Your task to perform on an android device: Open calendar and show me the third week of next month Image 0: 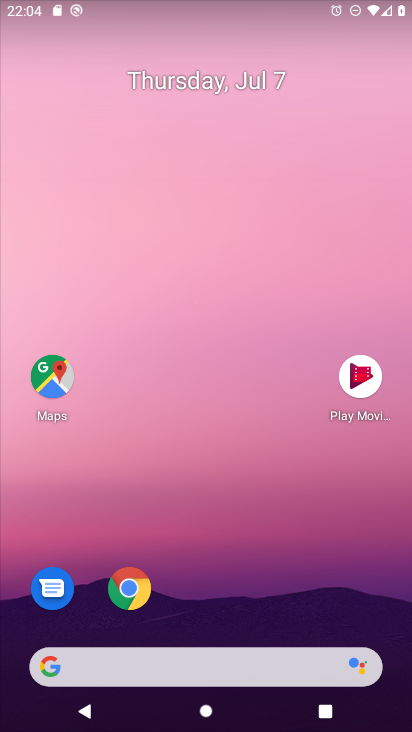
Step 0: drag from (134, 545) to (130, 121)
Your task to perform on an android device: Open calendar and show me the third week of next month Image 1: 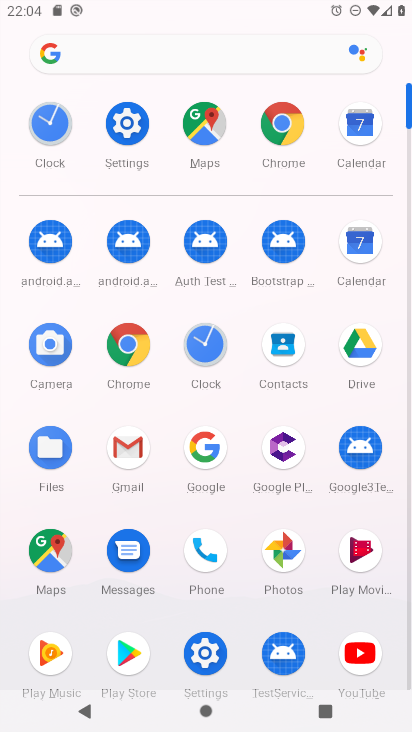
Step 1: click (356, 250)
Your task to perform on an android device: Open calendar and show me the third week of next month Image 2: 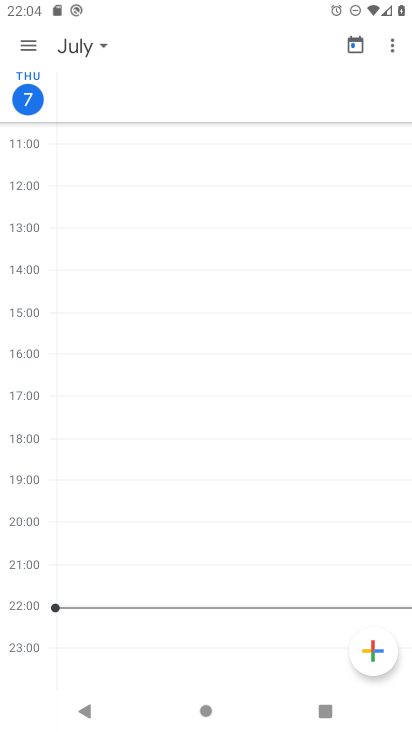
Step 2: click (30, 48)
Your task to perform on an android device: Open calendar and show me the third week of next month Image 3: 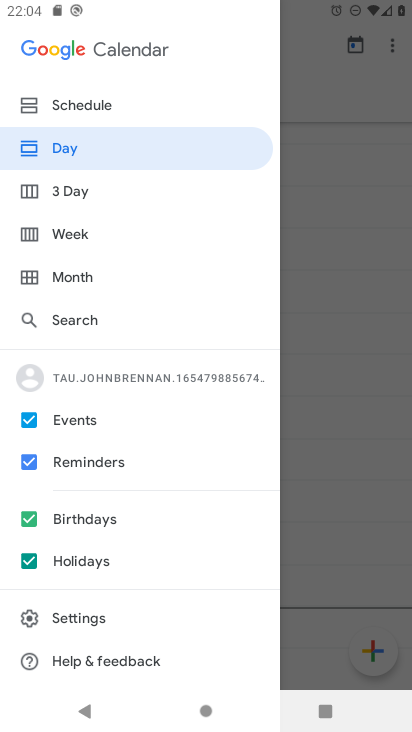
Step 3: click (91, 279)
Your task to perform on an android device: Open calendar and show me the third week of next month Image 4: 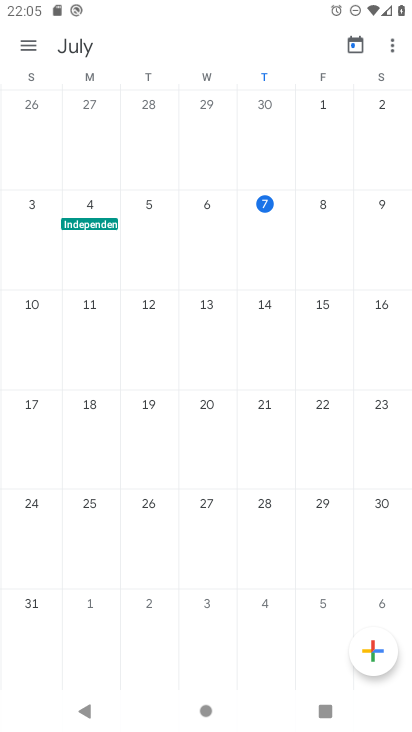
Step 4: task complete